Your task to perform on an android device: Open notification settings Image 0: 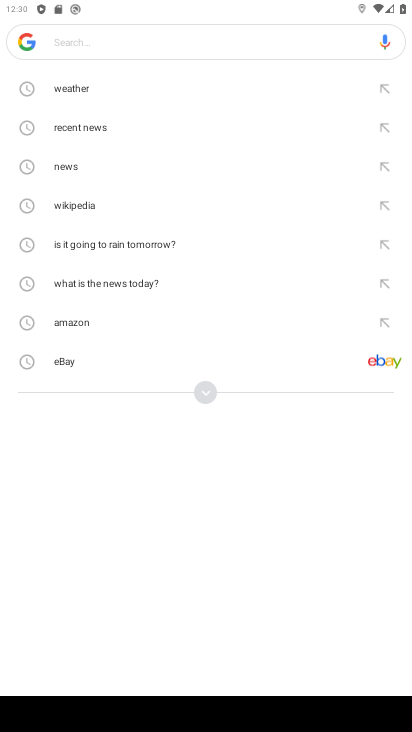
Step 0: press home button
Your task to perform on an android device: Open notification settings Image 1: 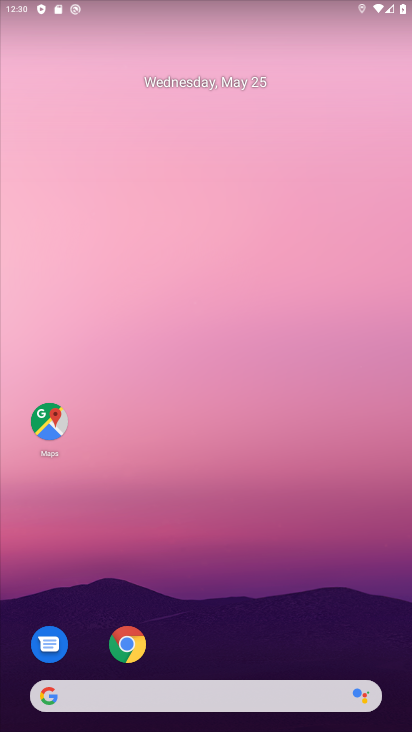
Step 1: drag from (217, 524) to (115, 17)
Your task to perform on an android device: Open notification settings Image 2: 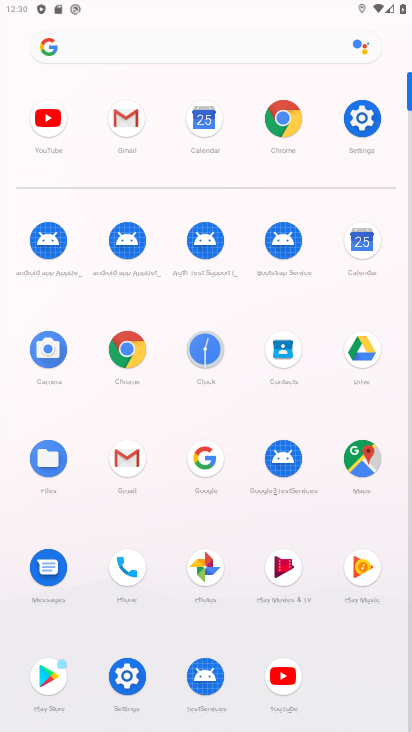
Step 2: click (366, 113)
Your task to perform on an android device: Open notification settings Image 3: 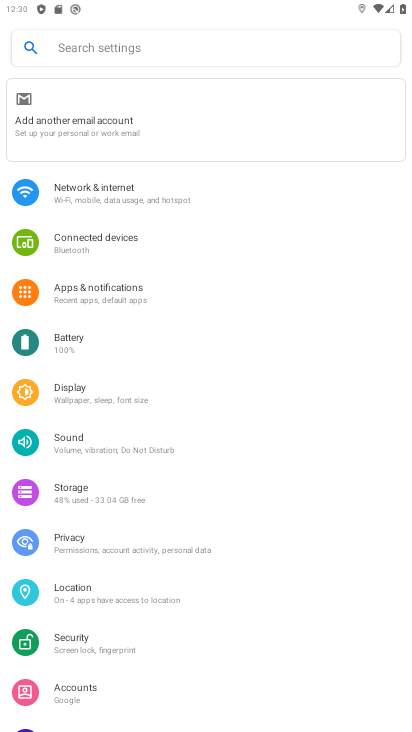
Step 3: click (97, 289)
Your task to perform on an android device: Open notification settings Image 4: 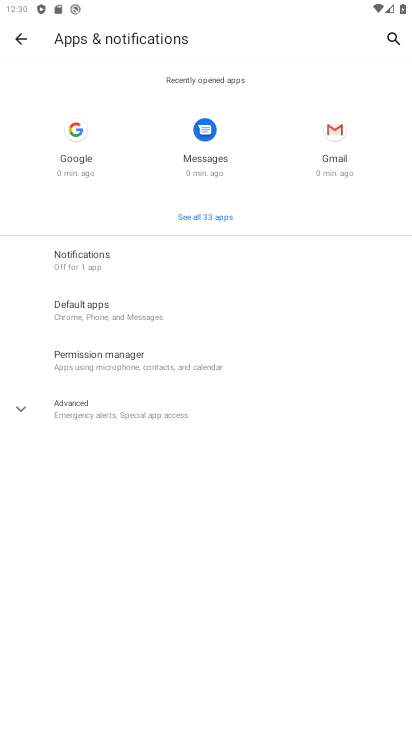
Step 4: click (90, 255)
Your task to perform on an android device: Open notification settings Image 5: 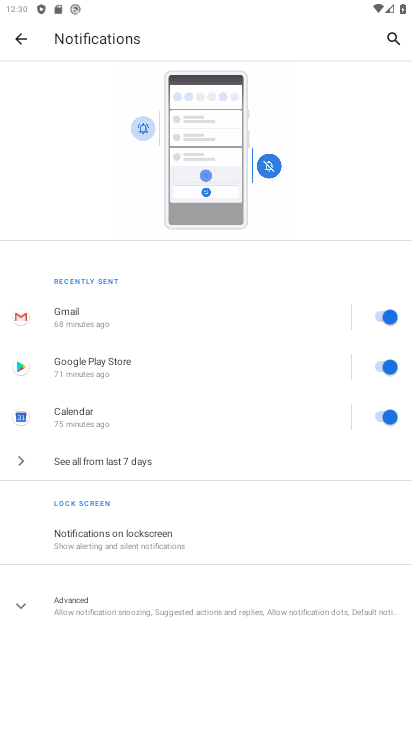
Step 5: task complete